Your task to perform on an android device: set default search engine in the chrome app Image 0: 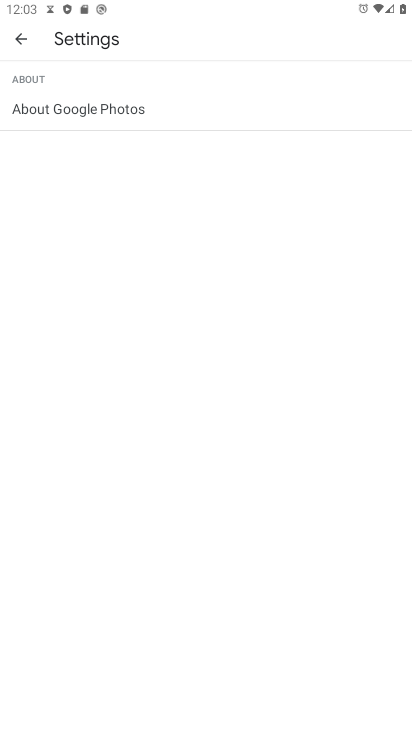
Step 0: drag from (191, 513) to (257, 2)
Your task to perform on an android device: set default search engine in the chrome app Image 1: 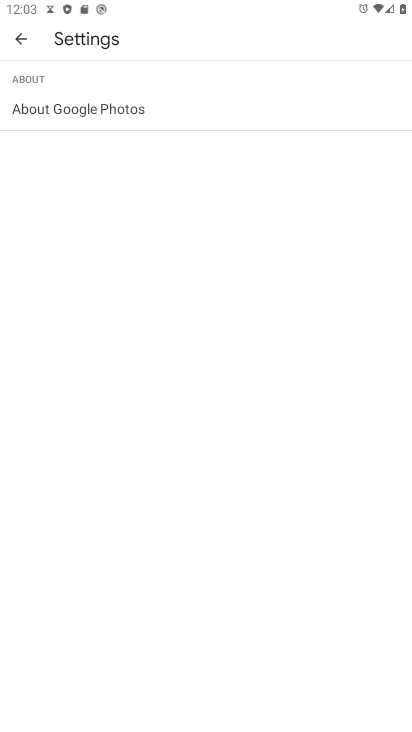
Step 1: press home button
Your task to perform on an android device: set default search engine in the chrome app Image 2: 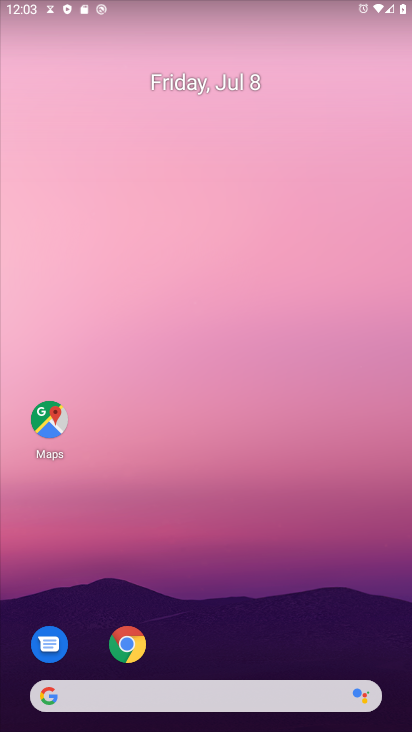
Step 2: click (139, 637)
Your task to perform on an android device: set default search engine in the chrome app Image 3: 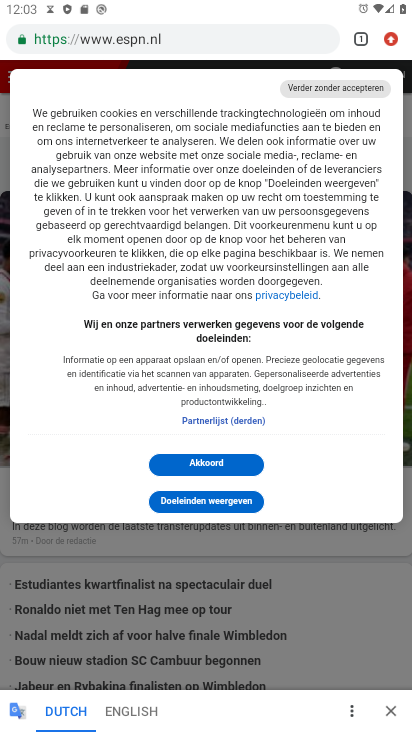
Step 3: click (388, 26)
Your task to perform on an android device: set default search engine in the chrome app Image 4: 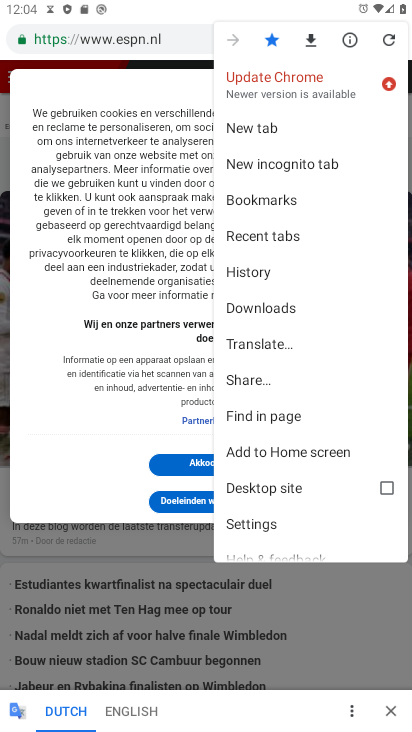
Step 4: click (255, 526)
Your task to perform on an android device: set default search engine in the chrome app Image 5: 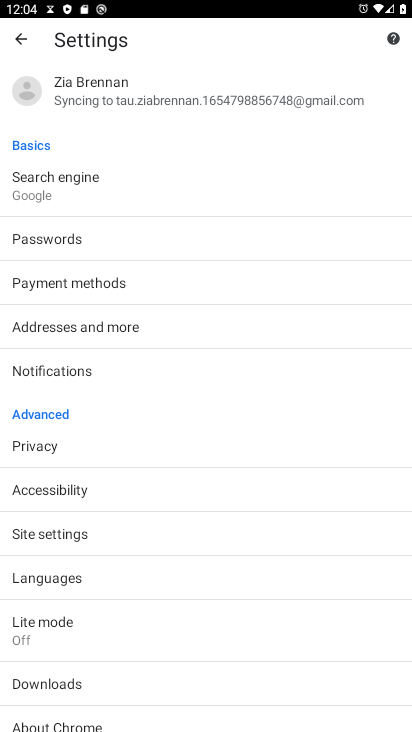
Step 5: click (80, 190)
Your task to perform on an android device: set default search engine in the chrome app Image 6: 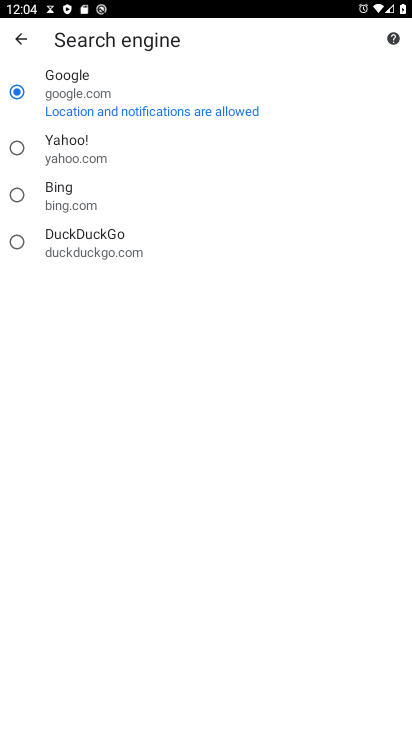
Step 6: click (101, 111)
Your task to perform on an android device: set default search engine in the chrome app Image 7: 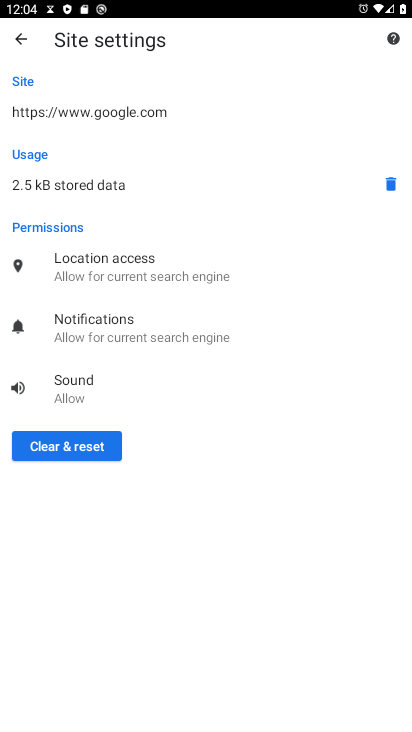
Step 7: click (84, 447)
Your task to perform on an android device: set default search engine in the chrome app Image 8: 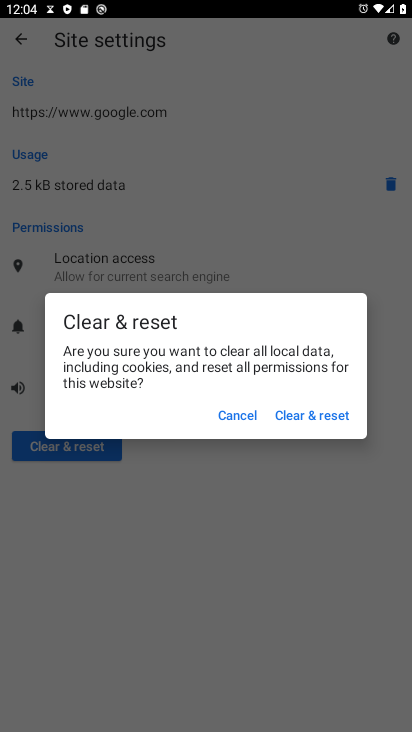
Step 8: click (341, 414)
Your task to perform on an android device: set default search engine in the chrome app Image 9: 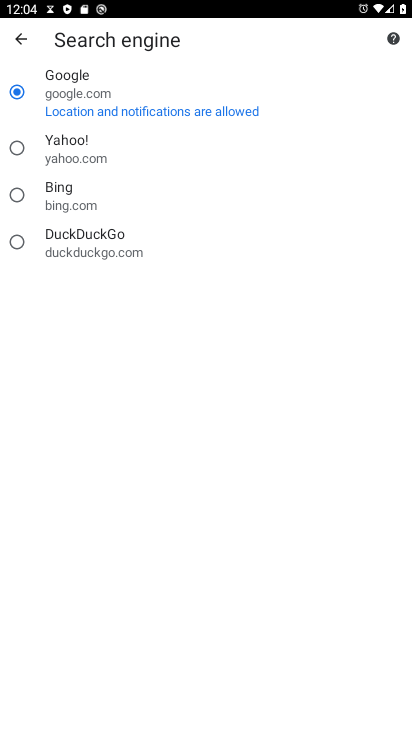
Step 9: task complete